Your task to perform on an android device: turn off notifications settings in the gmail app Image 0: 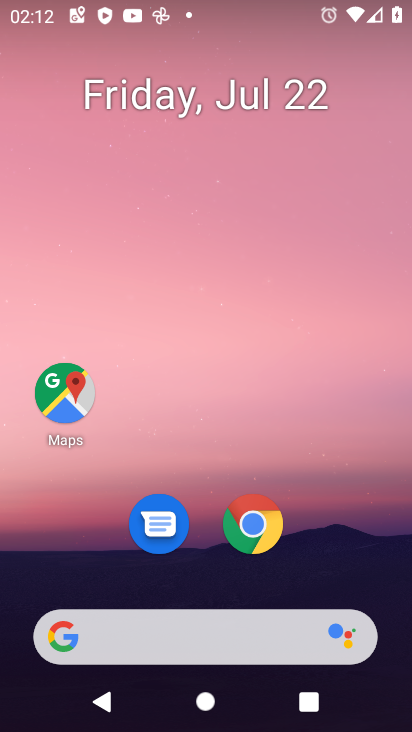
Step 0: press home button
Your task to perform on an android device: turn off notifications settings in the gmail app Image 1: 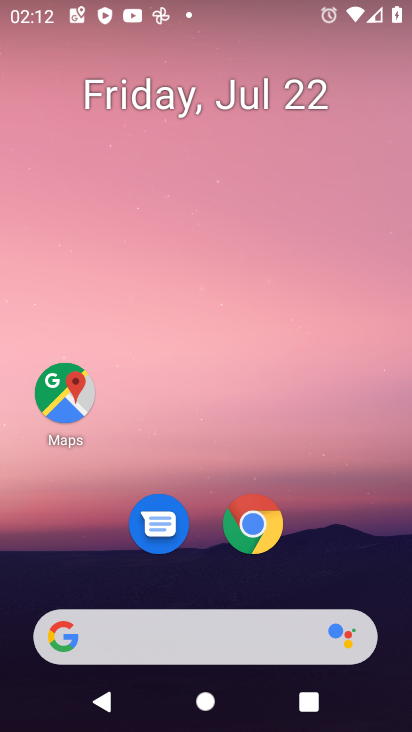
Step 1: drag from (196, 621) to (316, 101)
Your task to perform on an android device: turn off notifications settings in the gmail app Image 2: 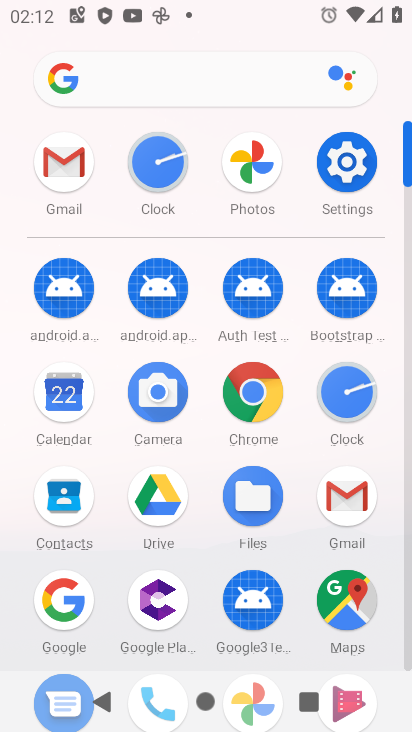
Step 2: click (350, 500)
Your task to perform on an android device: turn off notifications settings in the gmail app Image 3: 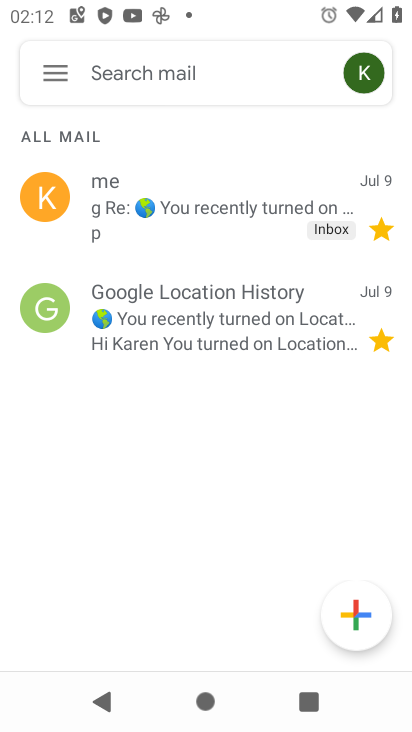
Step 3: click (67, 79)
Your task to perform on an android device: turn off notifications settings in the gmail app Image 4: 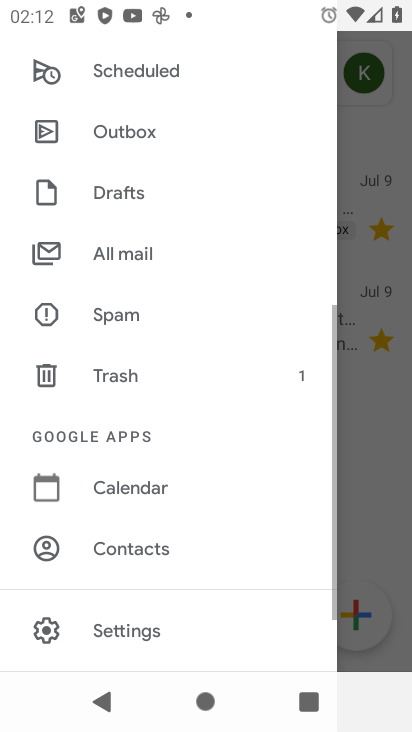
Step 4: click (145, 628)
Your task to perform on an android device: turn off notifications settings in the gmail app Image 5: 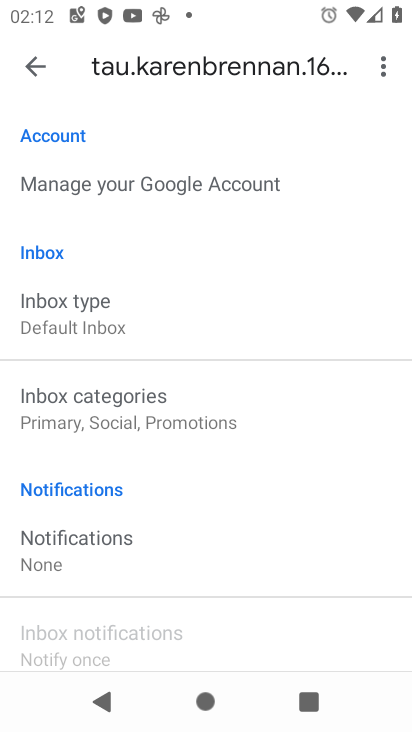
Step 5: click (67, 540)
Your task to perform on an android device: turn off notifications settings in the gmail app Image 6: 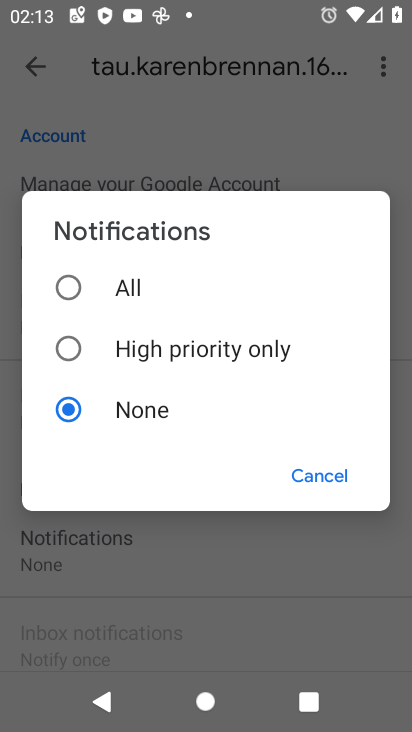
Step 6: task complete